Your task to perform on an android device: Show me productivity apps on the Play Store Image 0: 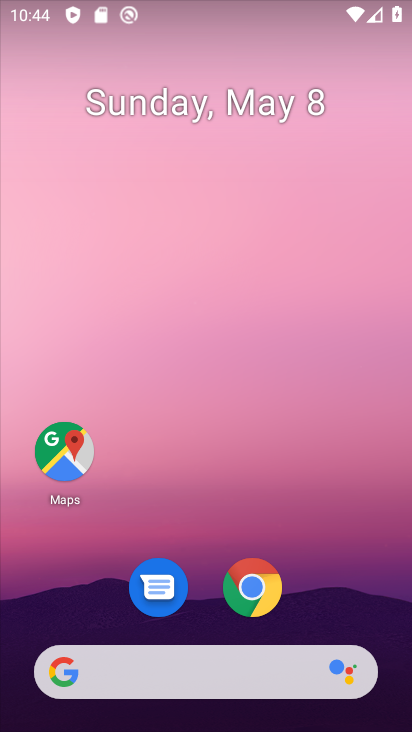
Step 0: drag from (382, 645) to (145, 92)
Your task to perform on an android device: Show me productivity apps on the Play Store Image 1: 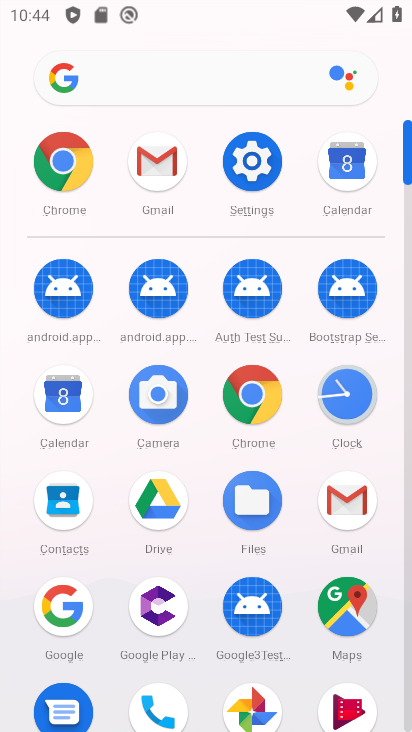
Step 1: drag from (315, 656) to (199, 212)
Your task to perform on an android device: Show me productivity apps on the Play Store Image 2: 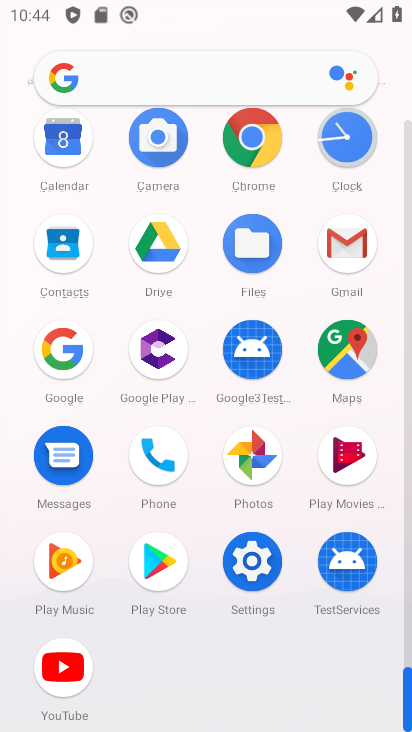
Step 2: click (161, 565)
Your task to perform on an android device: Show me productivity apps on the Play Store Image 3: 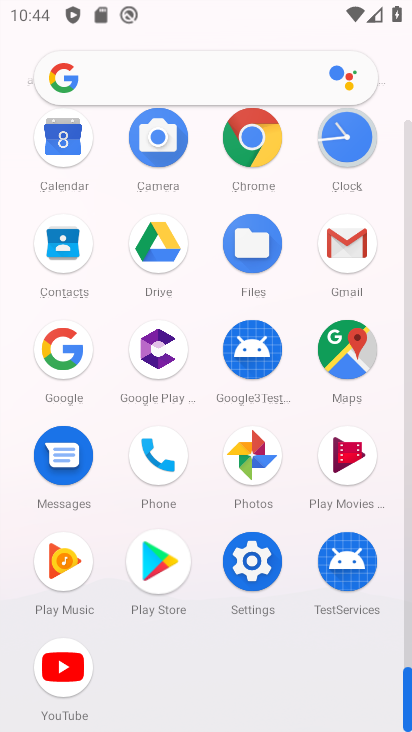
Step 3: click (161, 565)
Your task to perform on an android device: Show me productivity apps on the Play Store Image 4: 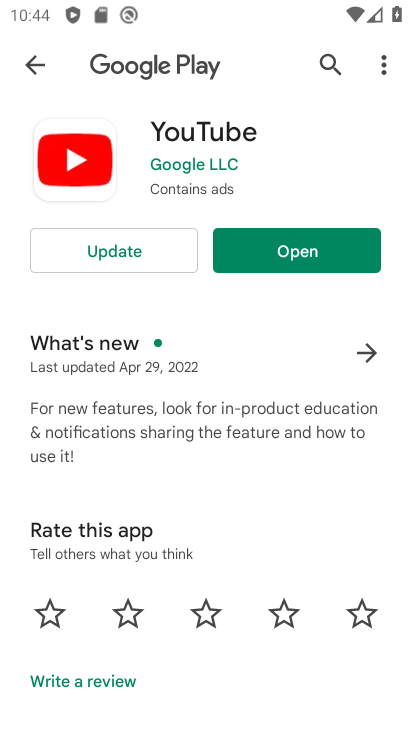
Step 4: click (304, 248)
Your task to perform on an android device: Show me productivity apps on the Play Store Image 5: 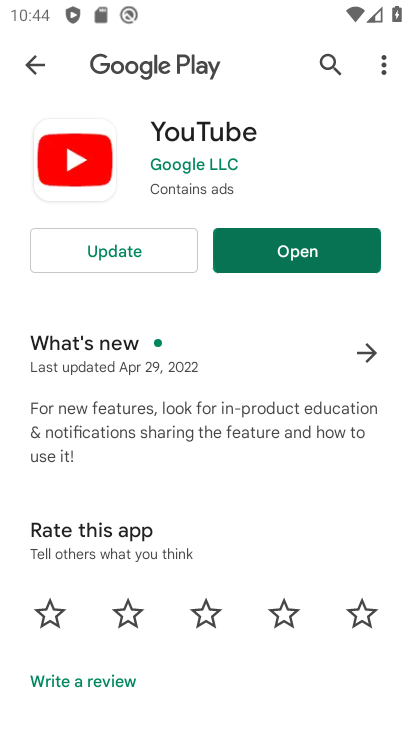
Step 5: click (312, 257)
Your task to perform on an android device: Show me productivity apps on the Play Store Image 6: 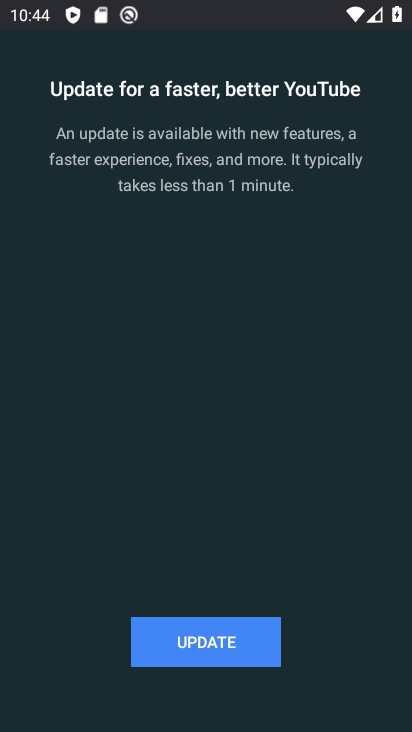
Step 6: press back button
Your task to perform on an android device: Show me productivity apps on the Play Store Image 7: 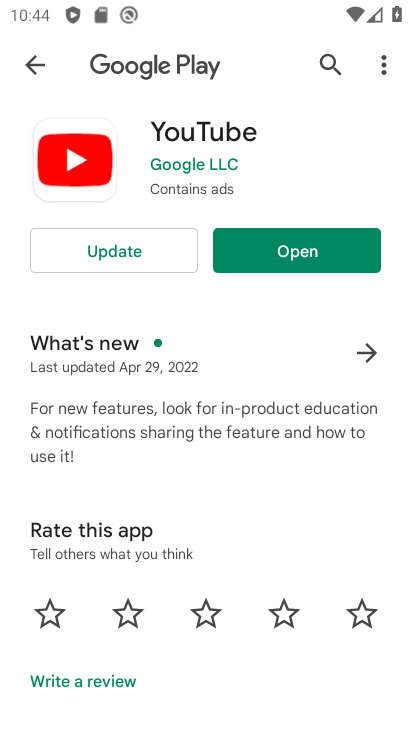
Step 7: press back button
Your task to perform on an android device: Show me productivity apps on the Play Store Image 8: 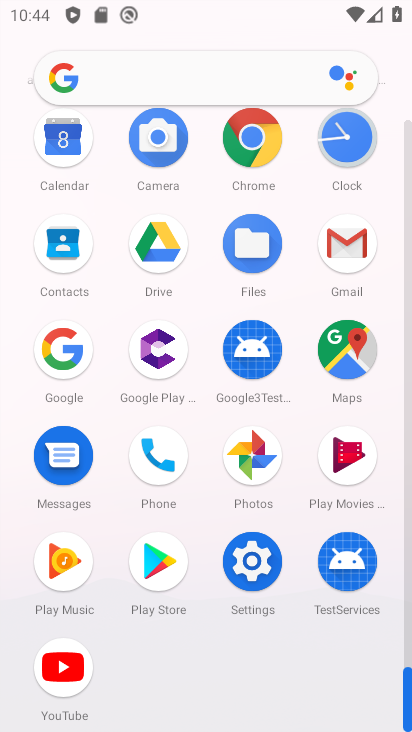
Step 8: click (163, 559)
Your task to perform on an android device: Show me productivity apps on the Play Store Image 9: 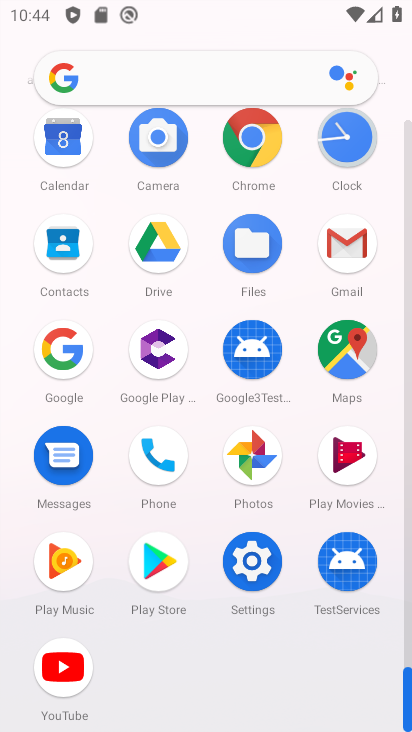
Step 9: click (163, 559)
Your task to perform on an android device: Show me productivity apps on the Play Store Image 10: 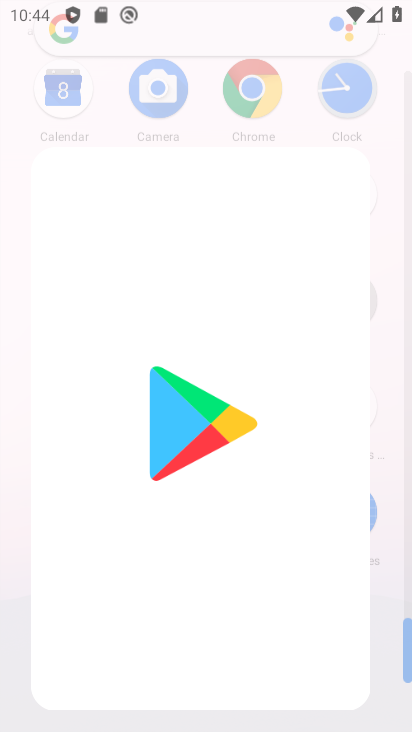
Step 10: click (162, 560)
Your task to perform on an android device: Show me productivity apps on the Play Store Image 11: 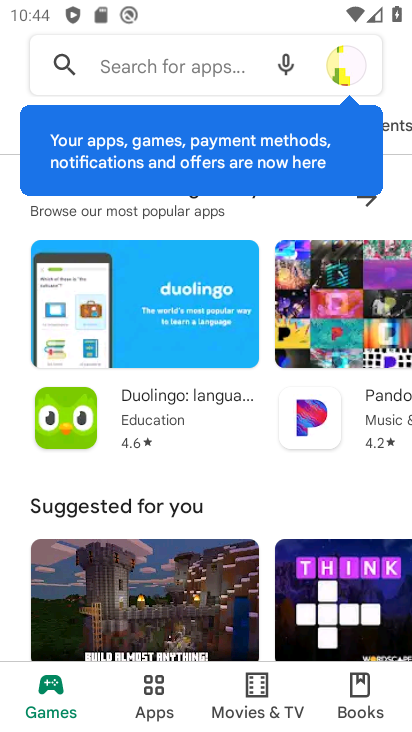
Step 11: click (90, 68)
Your task to perform on an android device: Show me productivity apps on the Play Store Image 12: 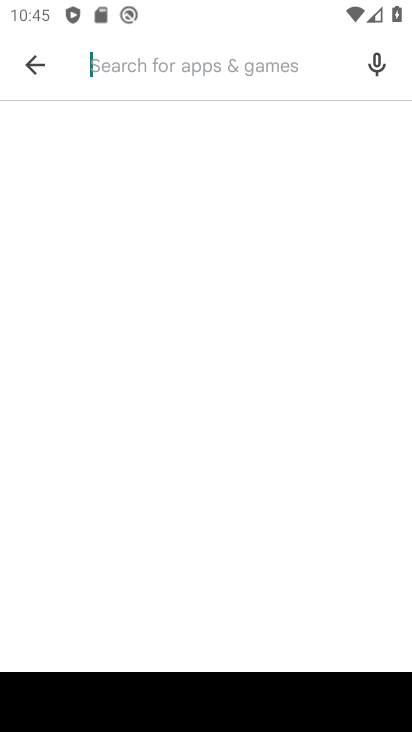
Step 12: type "productivity app"
Your task to perform on an android device: Show me productivity apps on the Play Store Image 13: 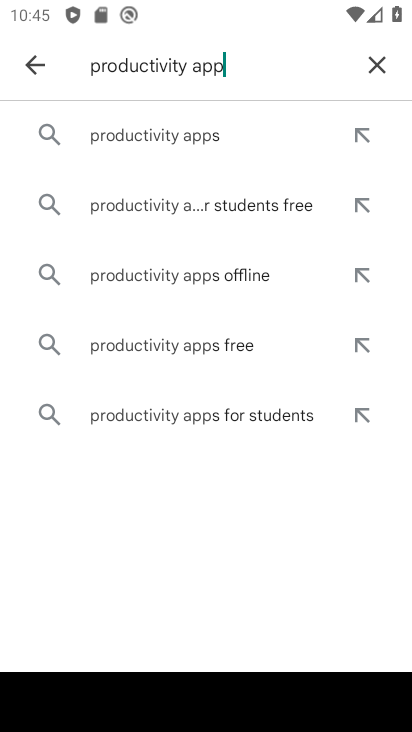
Step 13: click (196, 147)
Your task to perform on an android device: Show me productivity apps on the Play Store Image 14: 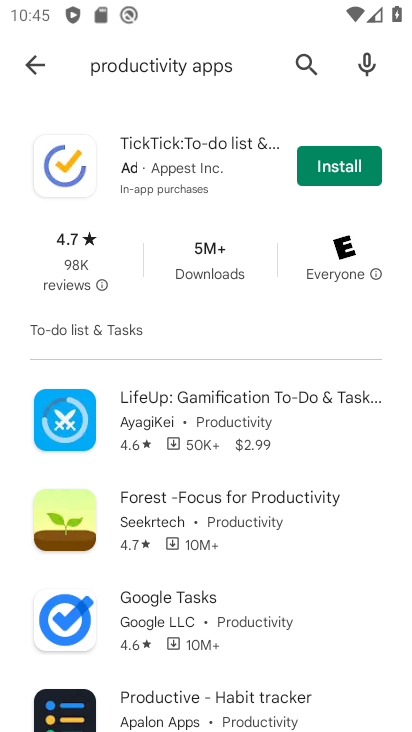
Step 14: task complete